Your task to perform on an android device: turn off improve location accuracy Image 0: 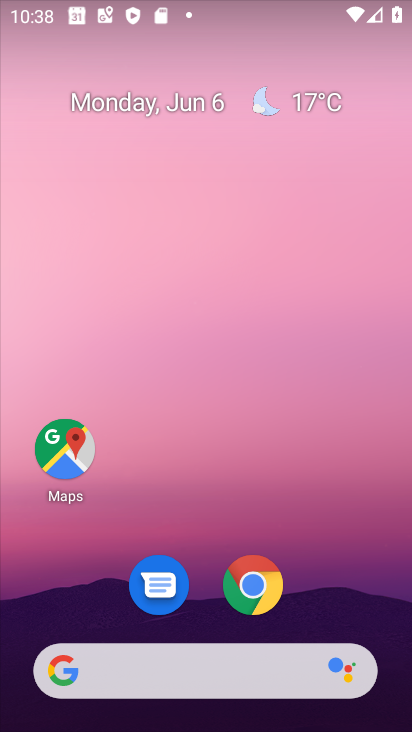
Step 0: drag from (221, 446) to (243, 71)
Your task to perform on an android device: turn off improve location accuracy Image 1: 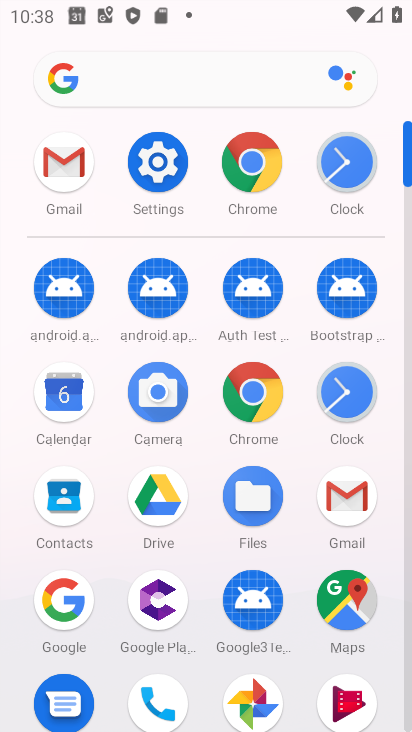
Step 1: click (162, 166)
Your task to perform on an android device: turn off improve location accuracy Image 2: 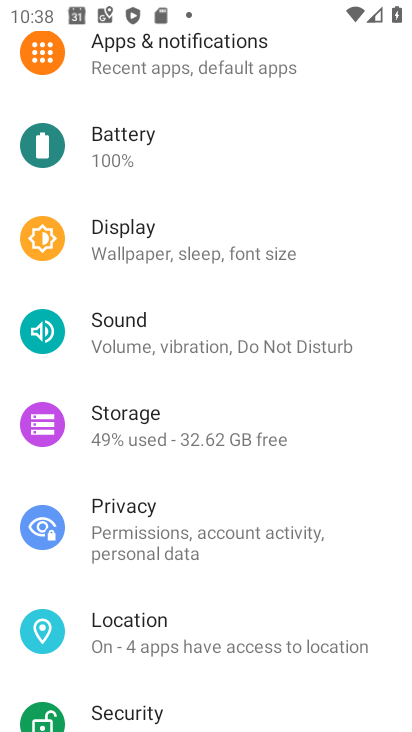
Step 2: click (216, 632)
Your task to perform on an android device: turn off improve location accuracy Image 3: 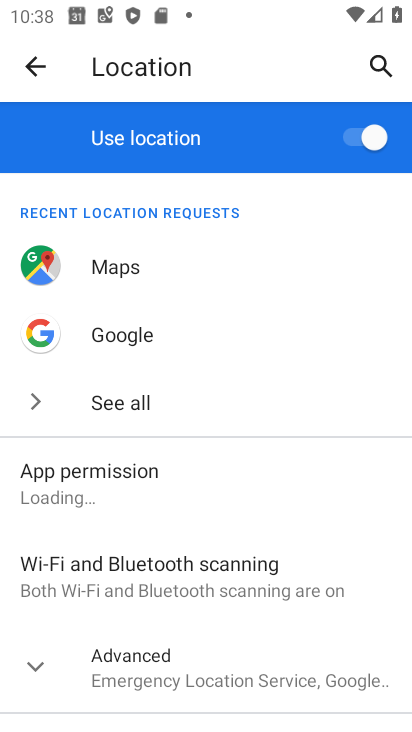
Step 3: click (40, 662)
Your task to perform on an android device: turn off improve location accuracy Image 4: 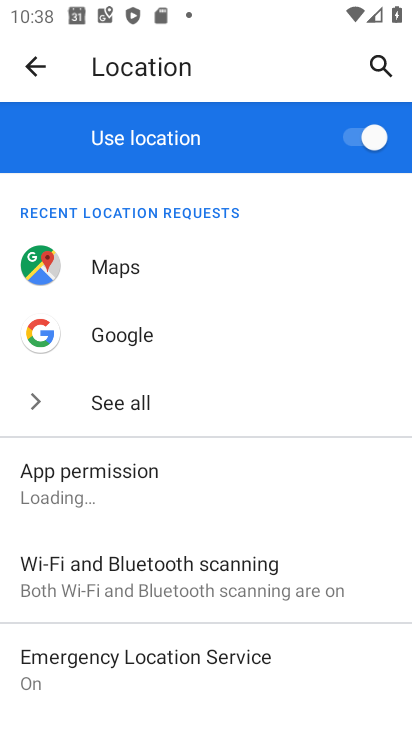
Step 4: drag from (169, 533) to (122, 288)
Your task to perform on an android device: turn off improve location accuracy Image 5: 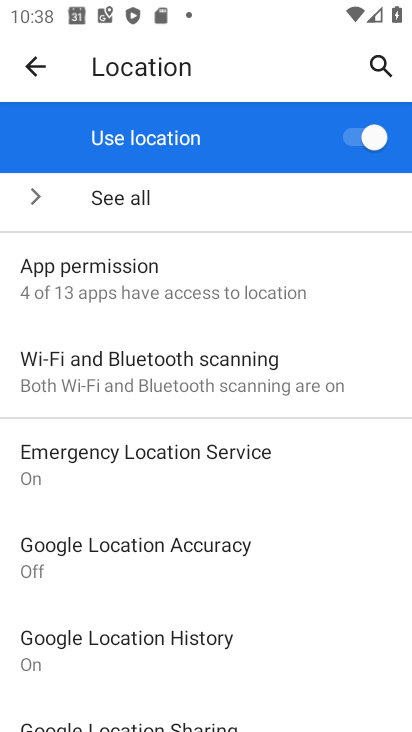
Step 5: click (134, 550)
Your task to perform on an android device: turn off improve location accuracy Image 6: 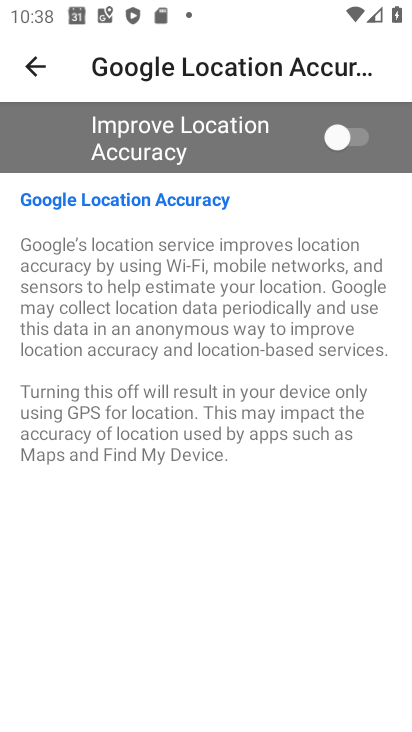
Step 6: task complete